Your task to perform on an android device: What is the news today? Image 0: 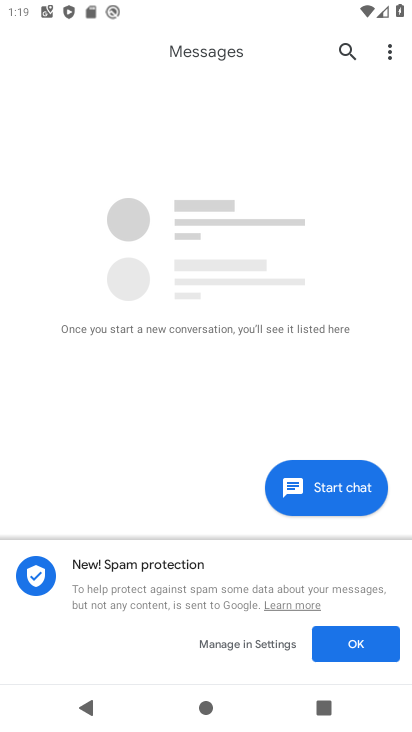
Step 0: press back button
Your task to perform on an android device: What is the news today? Image 1: 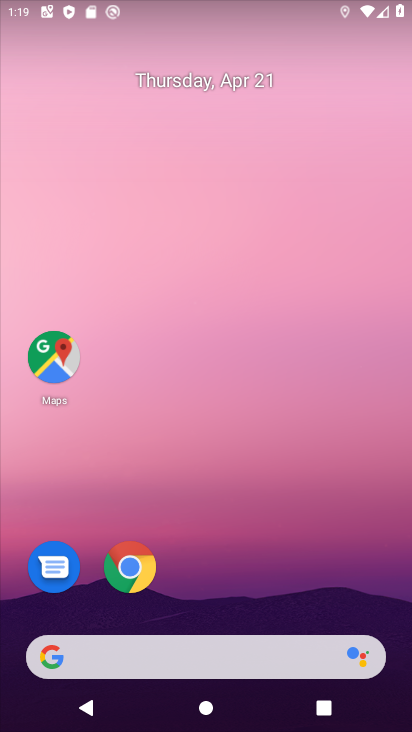
Step 1: drag from (264, 474) to (324, 76)
Your task to perform on an android device: What is the news today? Image 2: 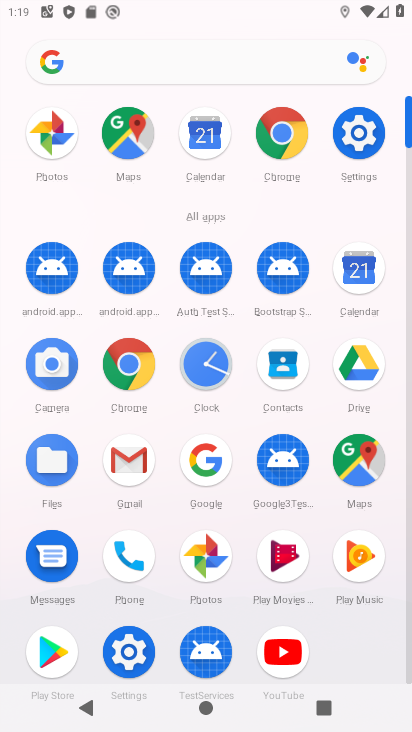
Step 2: click (211, 62)
Your task to perform on an android device: What is the news today? Image 3: 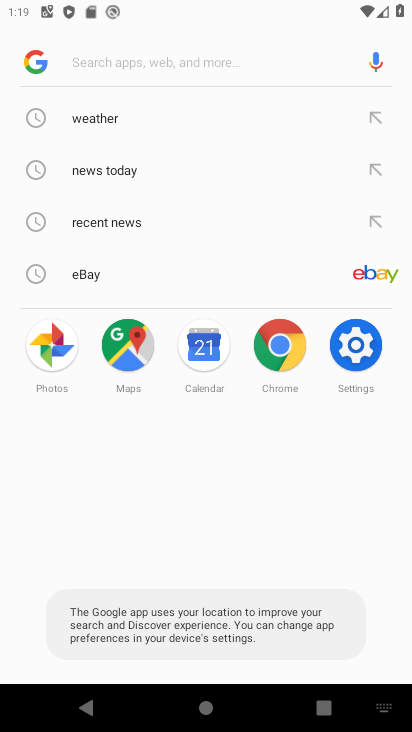
Step 3: click (127, 172)
Your task to perform on an android device: What is the news today? Image 4: 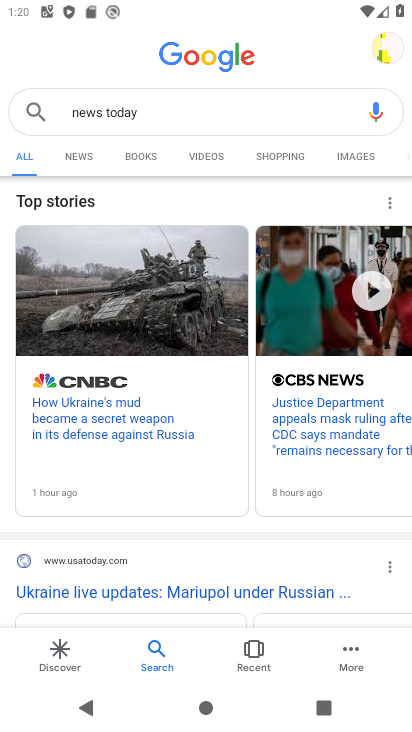
Step 4: task complete